Your task to perform on an android device: see sites visited before in the chrome app Image 0: 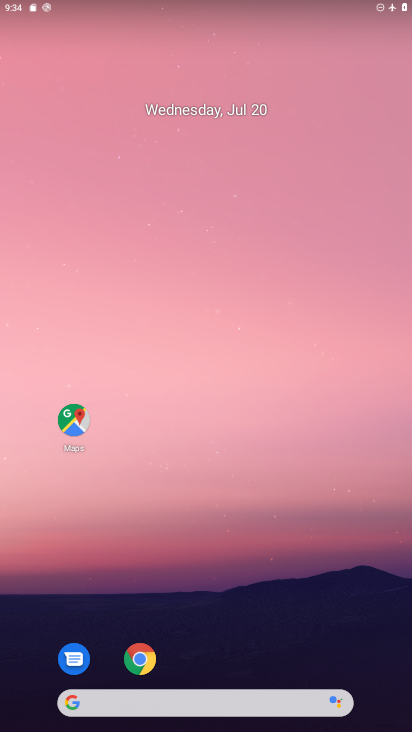
Step 0: drag from (279, 571) to (216, 33)
Your task to perform on an android device: see sites visited before in the chrome app Image 1: 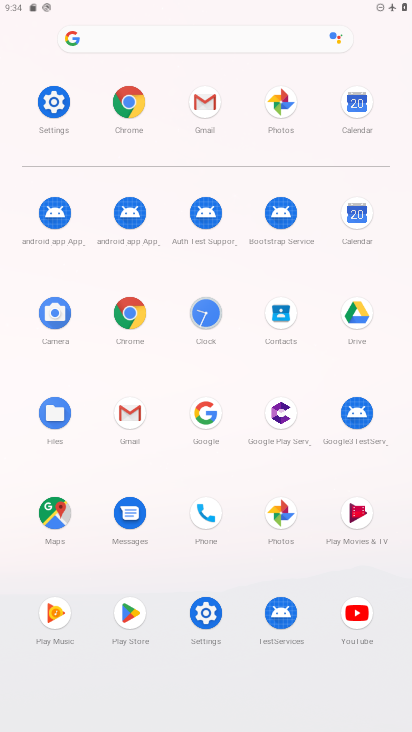
Step 1: click (133, 101)
Your task to perform on an android device: see sites visited before in the chrome app Image 2: 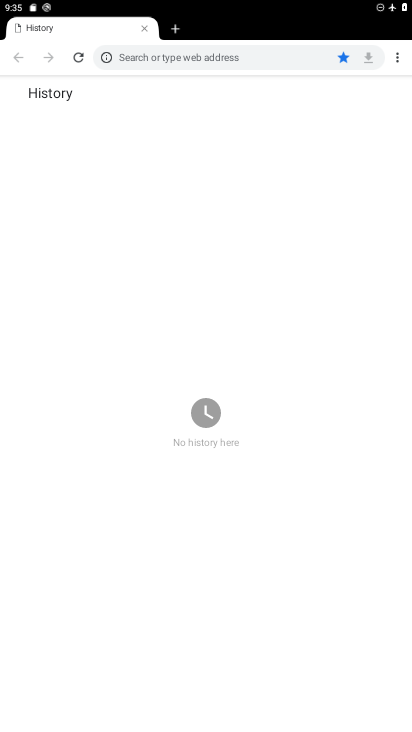
Step 2: task complete